Your task to perform on an android device: Open Google Image 0: 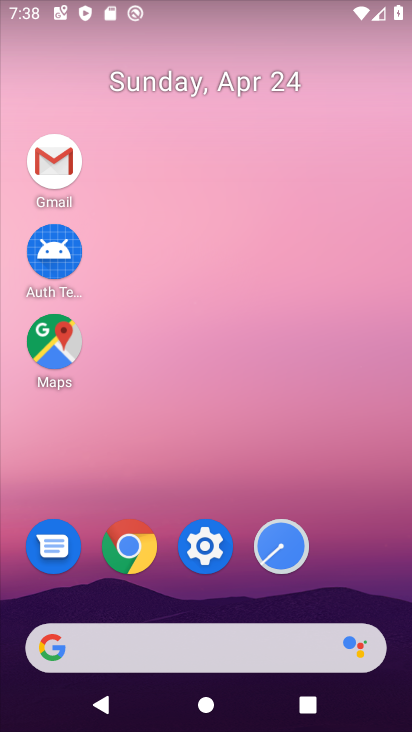
Step 0: click (142, 652)
Your task to perform on an android device: Open Google Image 1: 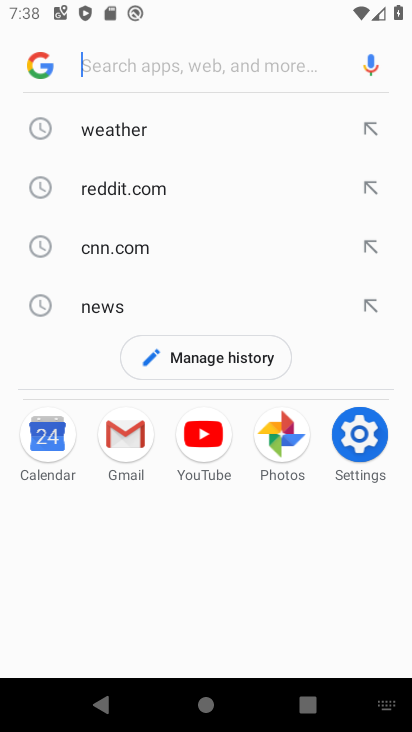
Step 1: click (38, 68)
Your task to perform on an android device: Open Google Image 2: 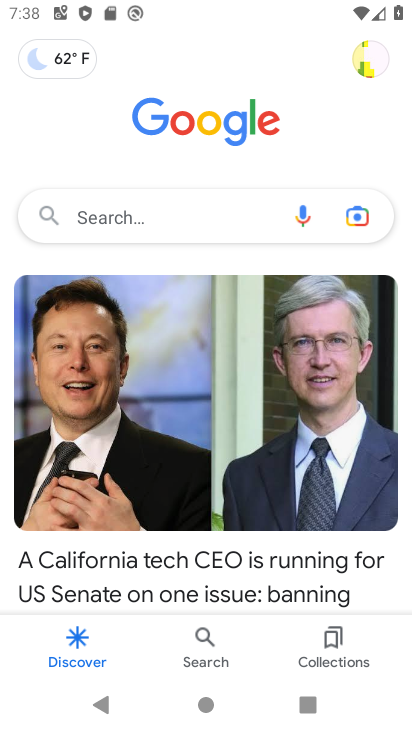
Step 2: task complete